Your task to perform on an android device: Open wifi settings Image 0: 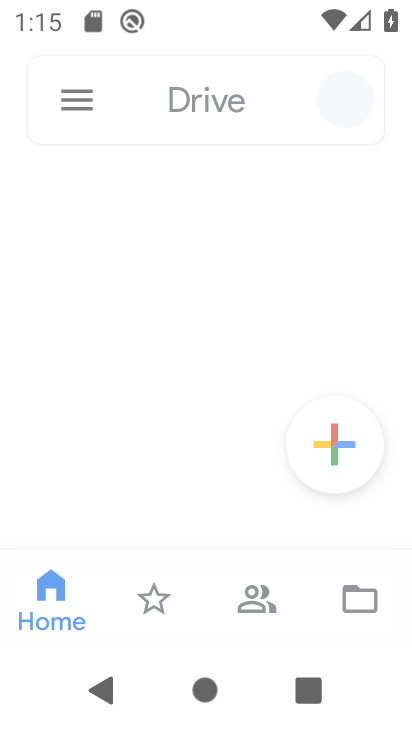
Step 0: drag from (295, 502) to (231, 63)
Your task to perform on an android device: Open wifi settings Image 1: 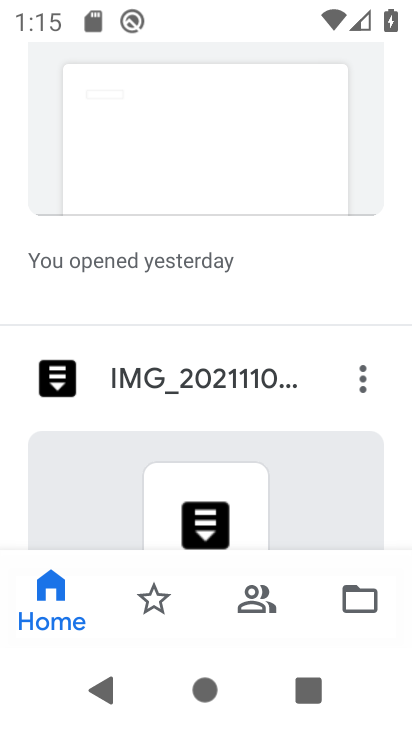
Step 1: press home button
Your task to perform on an android device: Open wifi settings Image 2: 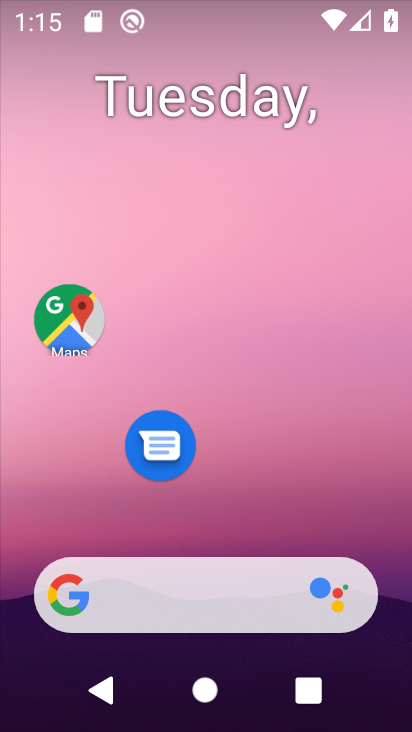
Step 2: drag from (290, 500) to (258, 55)
Your task to perform on an android device: Open wifi settings Image 3: 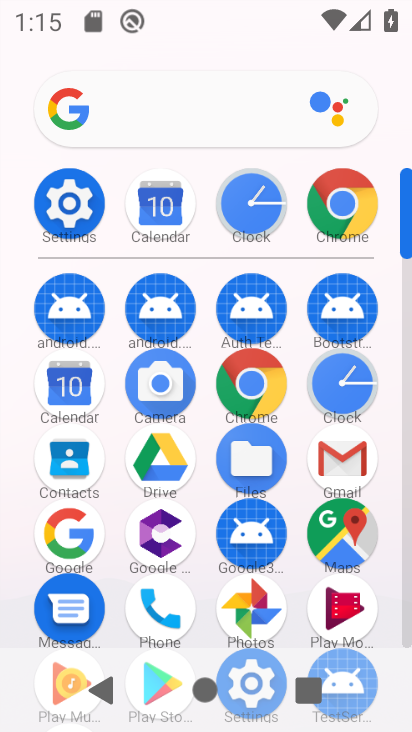
Step 3: click (75, 199)
Your task to perform on an android device: Open wifi settings Image 4: 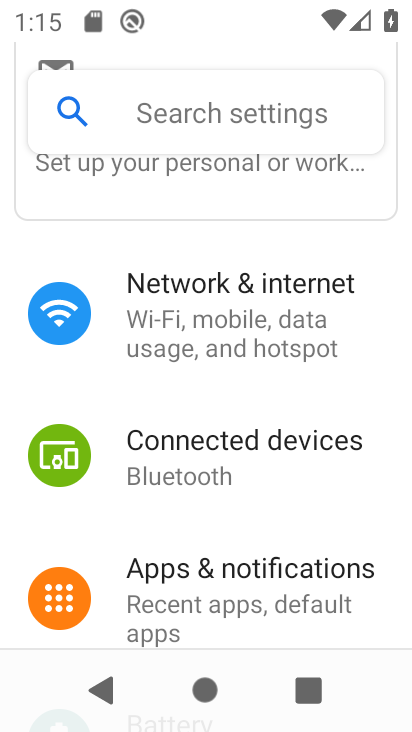
Step 4: click (218, 292)
Your task to perform on an android device: Open wifi settings Image 5: 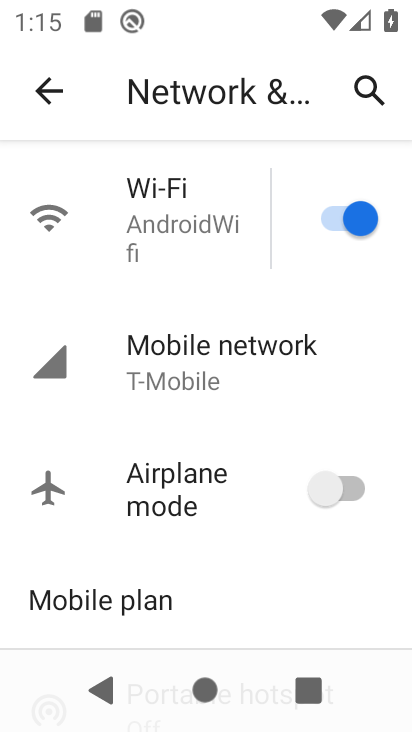
Step 5: click (147, 187)
Your task to perform on an android device: Open wifi settings Image 6: 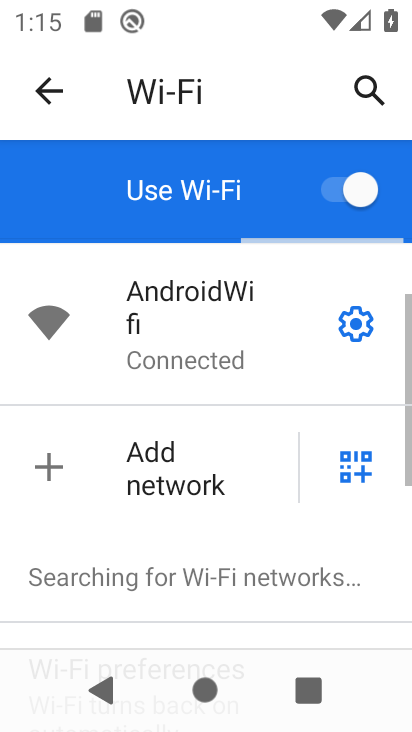
Step 6: task complete